Your task to perform on an android device: find which apps use the phone's location Image 0: 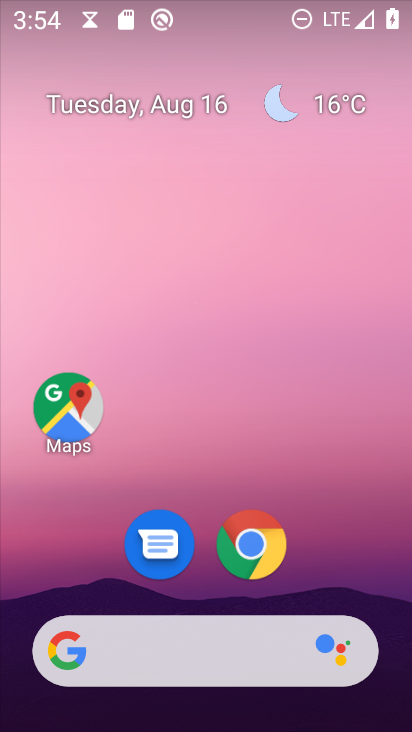
Step 0: drag from (243, 652) to (253, 96)
Your task to perform on an android device: find which apps use the phone's location Image 1: 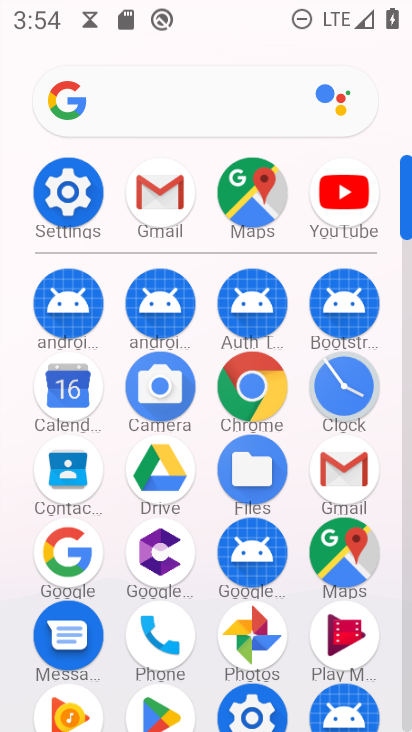
Step 1: click (65, 192)
Your task to perform on an android device: find which apps use the phone's location Image 2: 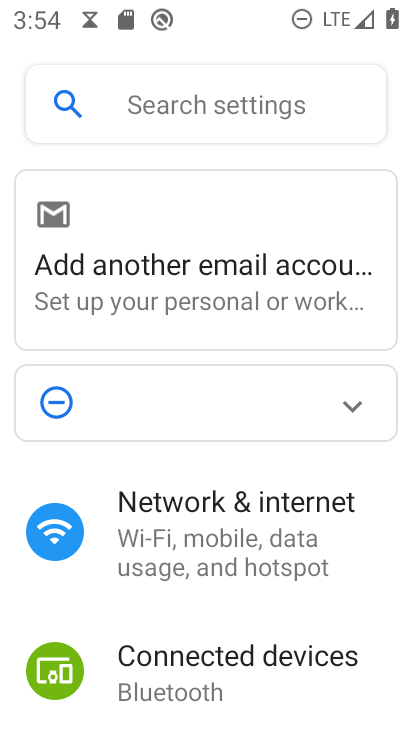
Step 2: drag from (187, 620) to (225, 448)
Your task to perform on an android device: find which apps use the phone's location Image 3: 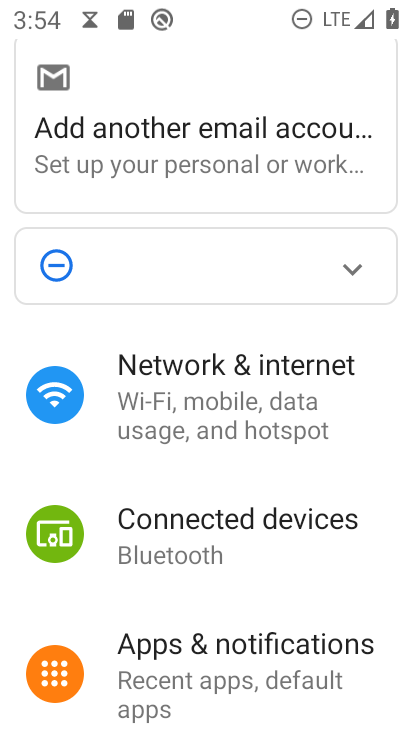
Step 3: drag from (150, 590) to (218, 460)
Your task to perform on an android device: find which apps use the phone's location Image 4: 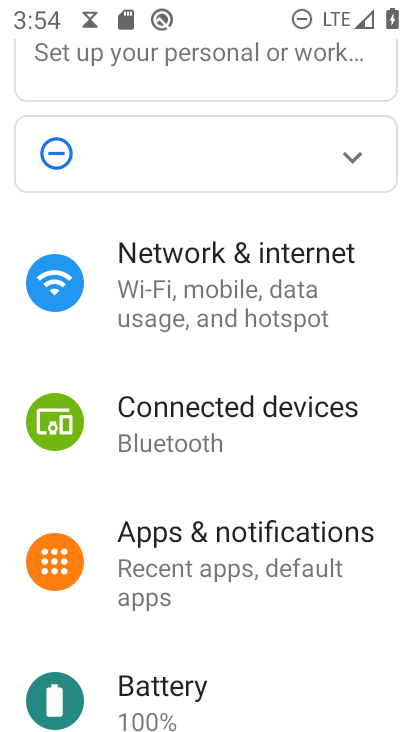
Step 4: drag from (190, 618) to (268, 461)
Your task to perform on an android device: find which apps use the phone's location Image 5: 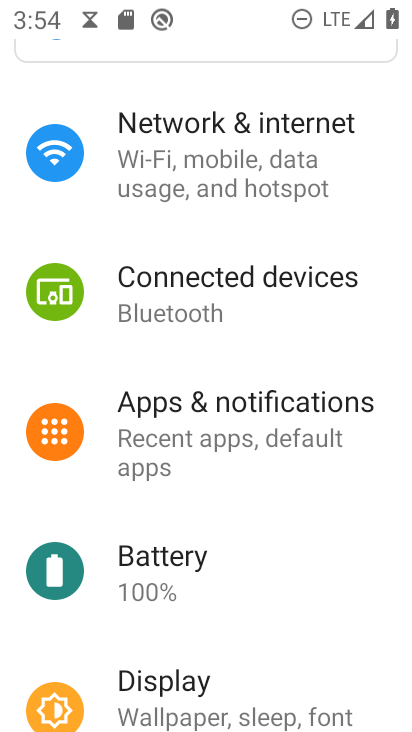
Step 5: drag from (211, 632) to (262, 501)
Your task to perform on an android device: find which apps use the phone's location Image 6: 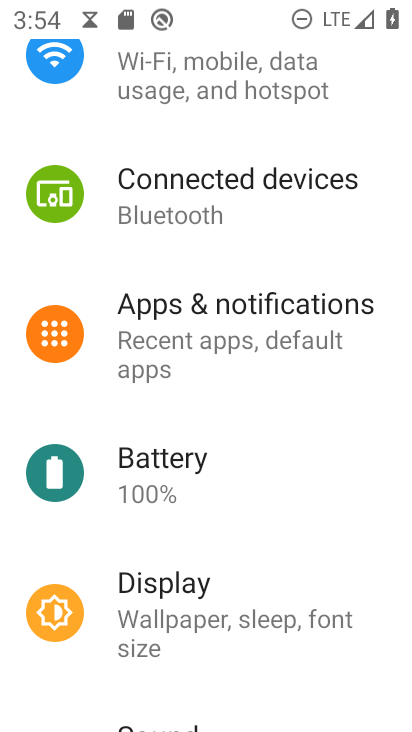
Step 6: drag from (204, 650) to (248, 545)
Your task to perform on an android device: find which apps use the phone's location Image 7: 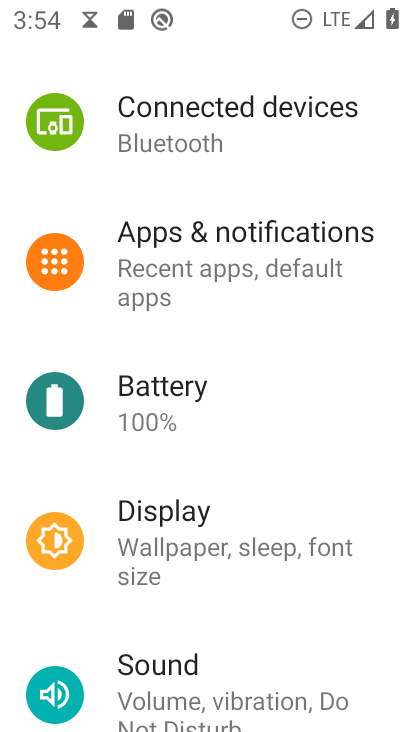
Step 7: drag from (219, 658) to (284, 500)
Your task to perform on an android device: find which apps use the phone's location Image 8: 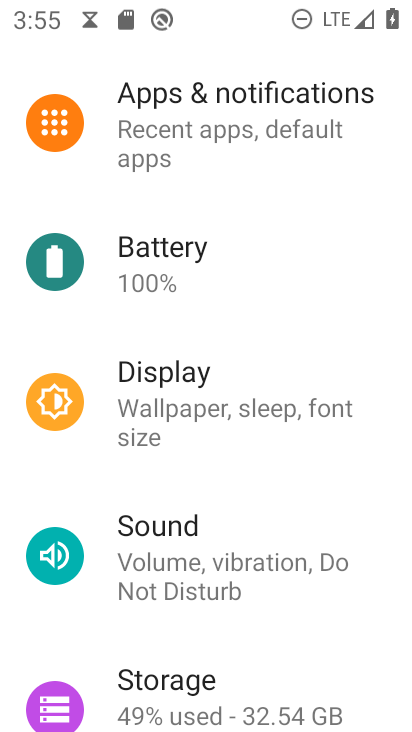
Step 8: drag from (206, 622) to (274, 510)
Your task to perform on an android device: find which apps use the phone's location Image 9: 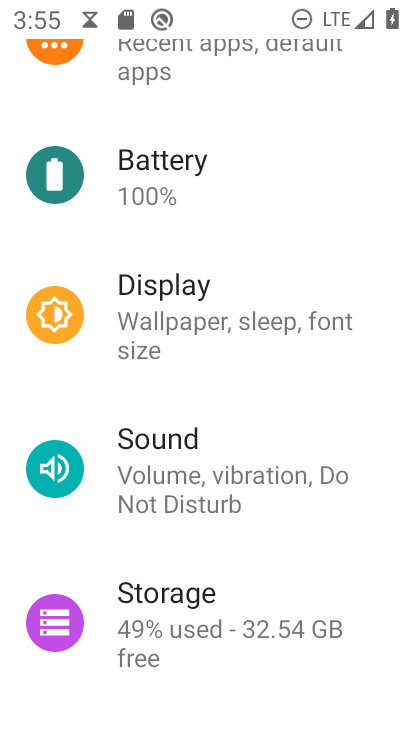
Step 9: drag from (209, 673) to (277, 501)
Your task to perform on an android device: find which apps use the phone's location Image 10: 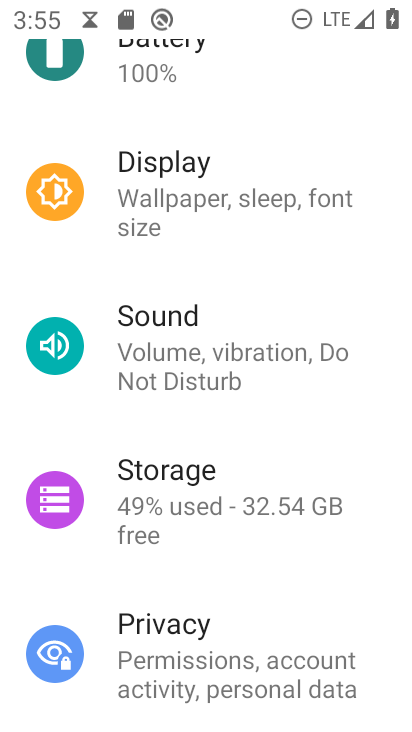
Step 10: drag from (160, 570) to (237, 429)
Your task to perform on an android device: find which apps use the phone's location Image 11: 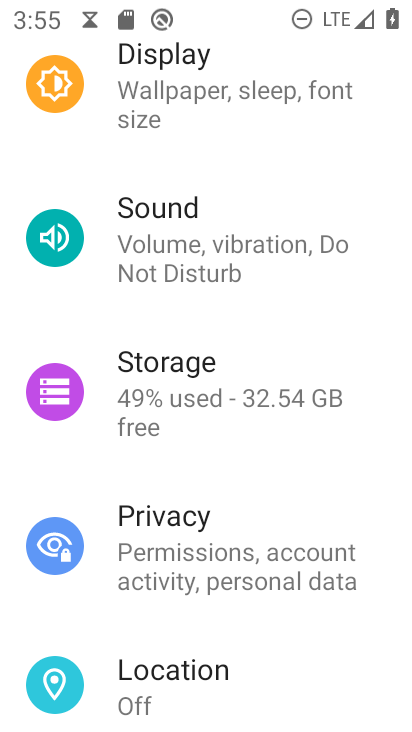
Step 11: drag from (157, 630) to (231, 493)
Your task to perform on an android device: find which apps use the phone's location Image 12: 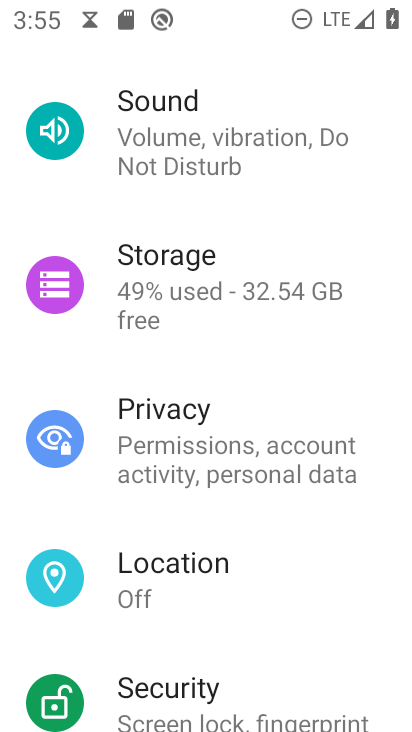
Step 12: drag from (175, 622) to (260, 494)
Your task to perform on an android device: find which apps use the phone's location Image 13: 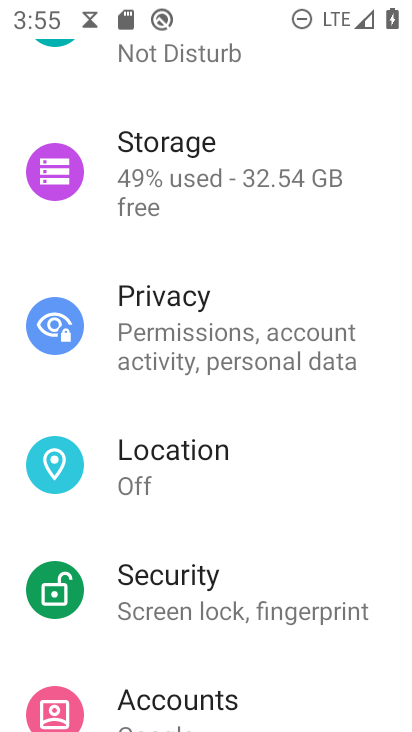
Step 13: click (220, 463)
Your task to perform on an android device: find which apps use the phone's location Image 14: 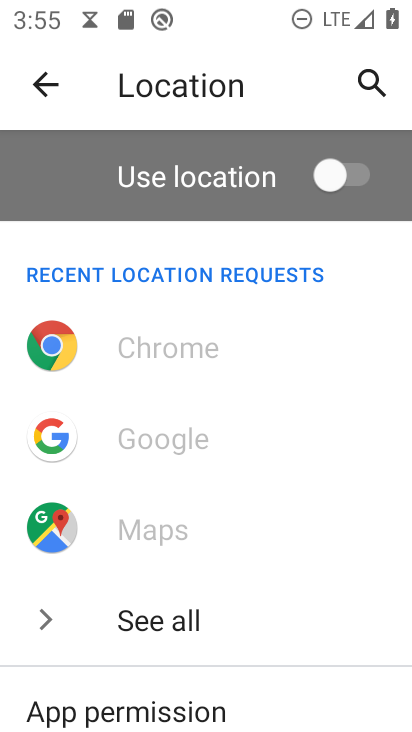
Step 14: drag from (257, 696) to (280, 460)
Your task to perform on an android device: find which apps use the phone's location Image 15: 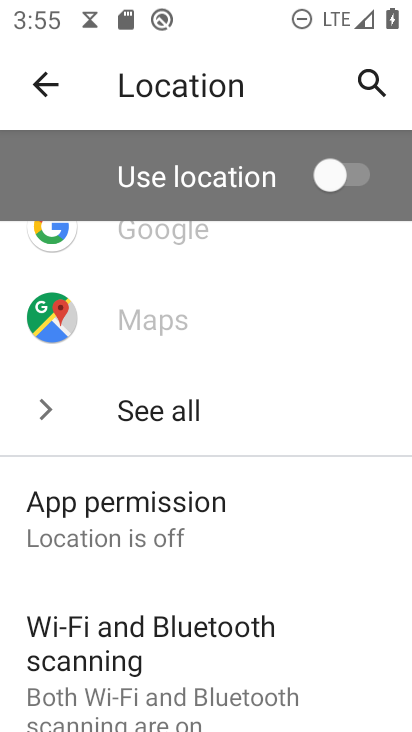
Step 15: drag from (197, 647) to (282, 522)
Your task to perform on an android device: find which apps use the phone's location Image 16: 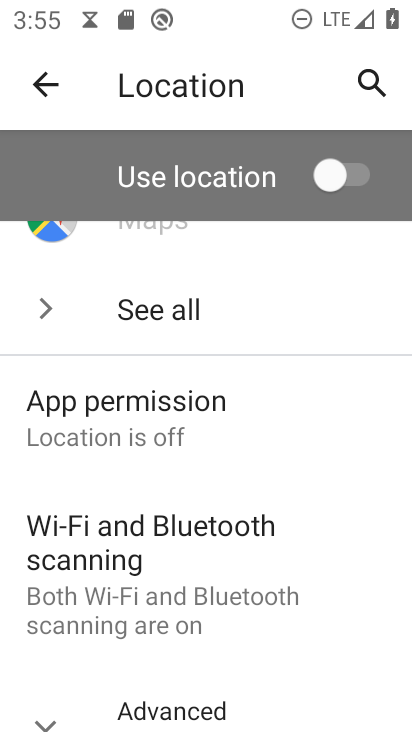
Step 16: click (205, 417)
Your task to perform on an android device: find which apps use the phone's location Image 17: 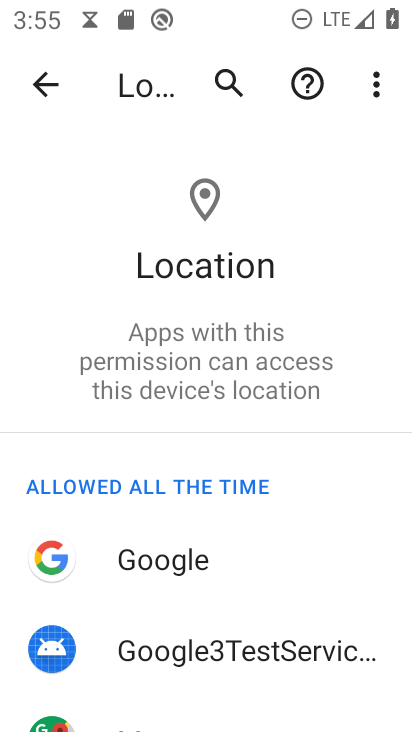
Step 17: drag from (198, 600) to (322, 389)
Your task to perform on an android device: find which apps use the phone's location Image 18: 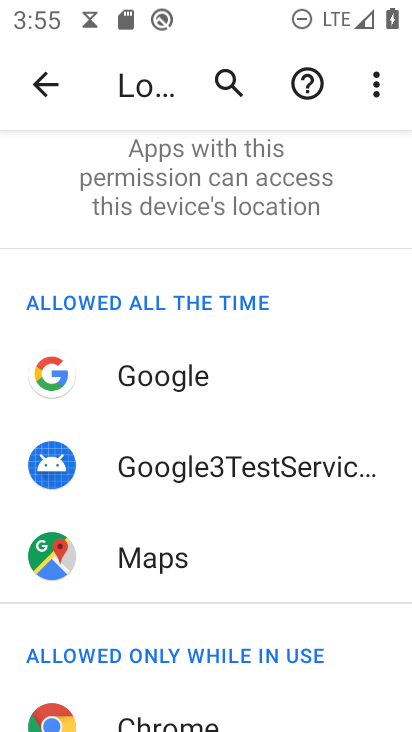
Step 18: click (144, 560)
Your task to perform on an android device: find which apps use the phone's location Image 19: 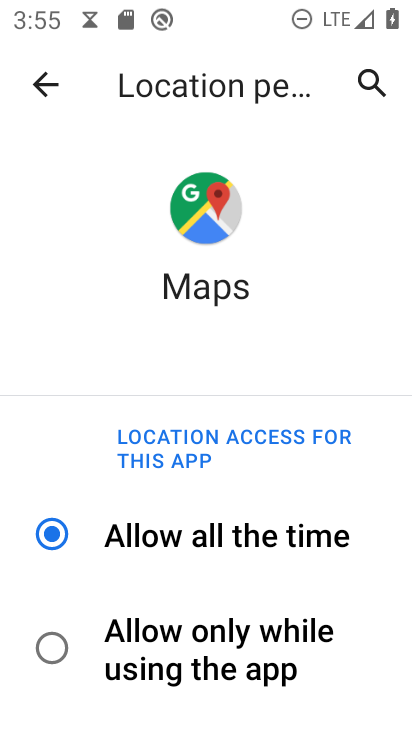
Step 19: task complete